Your task to perform on an android device: manage bookmarks in the chrome app Image 0: 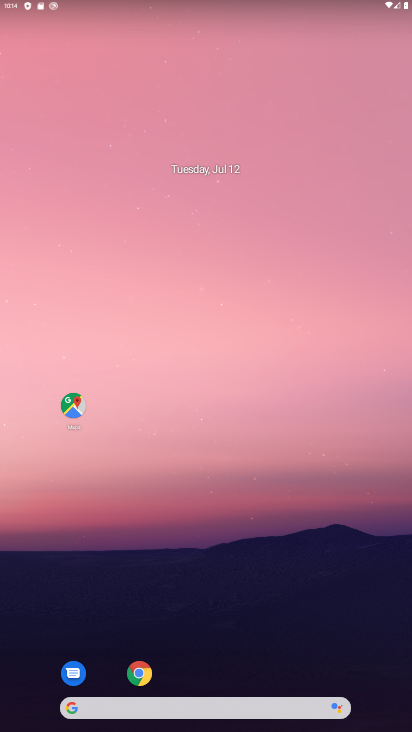
Step 0: drag from (308, 555) to (294, 120)
Your task to perform on an android device: manage bookmarks in the chrome app Image 1: 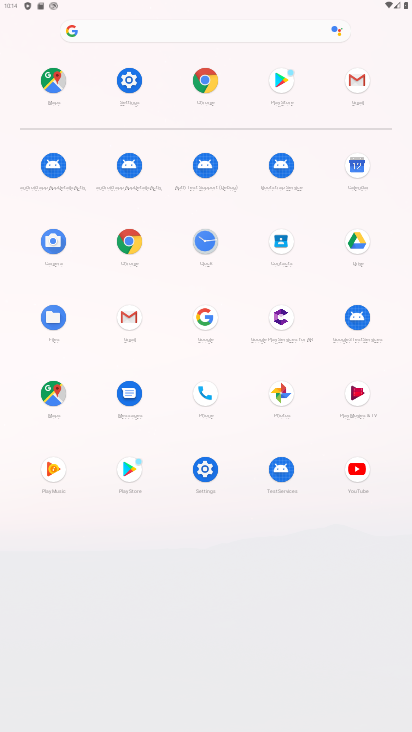
Step 1: click (212, 73)
Your task to perform on an android device: manage bookmarks in the chrome app Image 2: 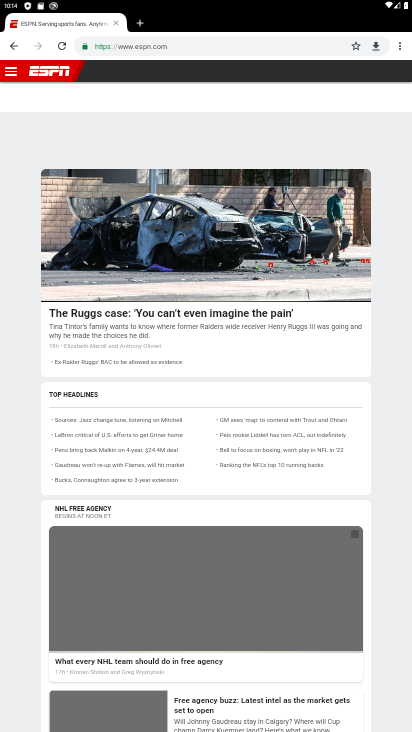
Step 2: task complete